Your task to perform on an android device: check battery use Image 0: 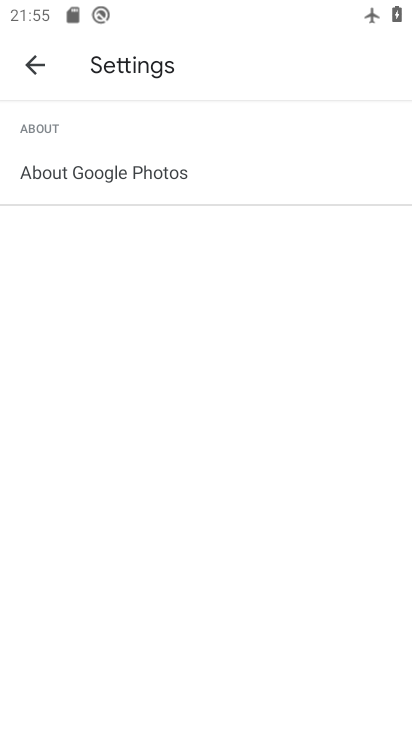
Step 0: press home button
Your task to perform on an android device: check battery use Image 1: 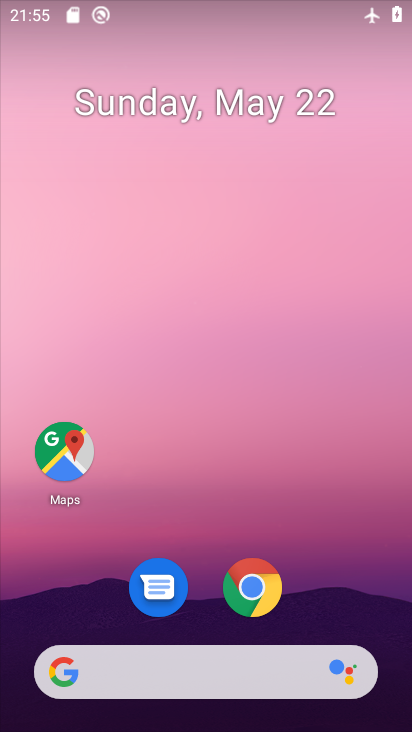
Step 1: drag from (193, 492) to (169, 23)
Your task to perform on an android device: check battery use Image 2: 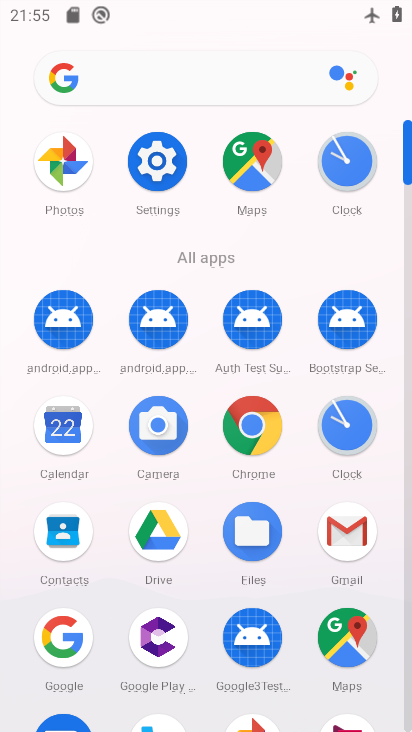
Step 2: click (157, 173)
Your task to perform on an android device: check battery use Image 3: 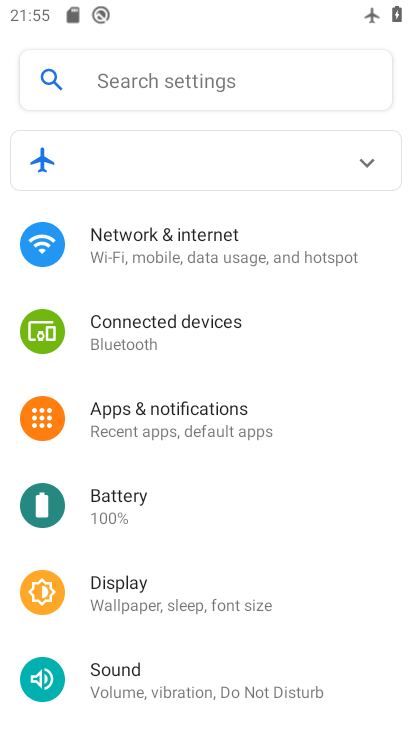
Step 3: click (147, 494)
Your task to perform on an android device: check battery use Image 4: 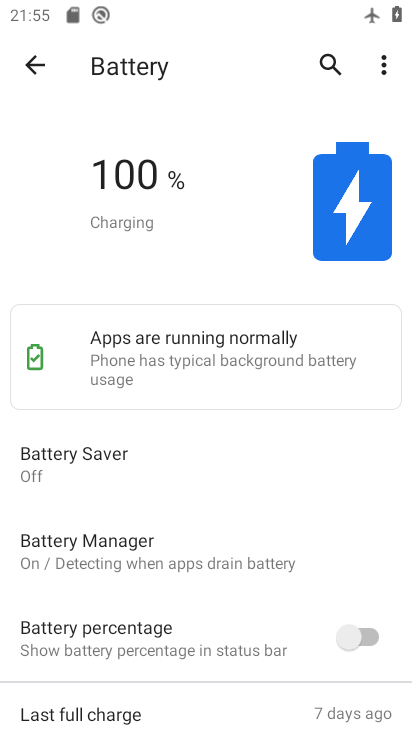
Step 4: click (374, 55)
Your task to perform on an android device: check battery use Image 5: 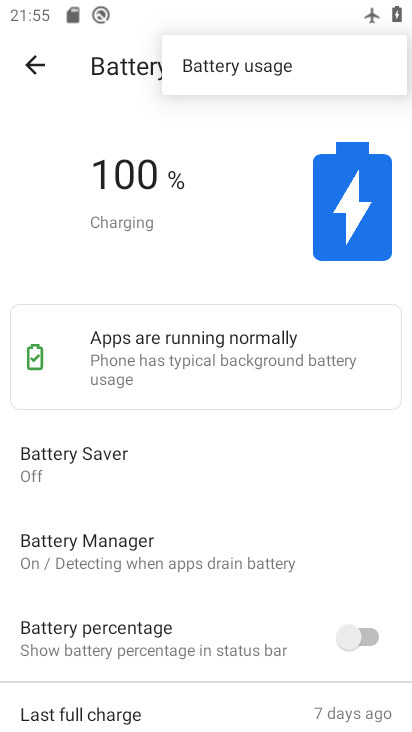
Step 5: click (281, 62)
Your task to perform on an android device: check battery use Image 6: 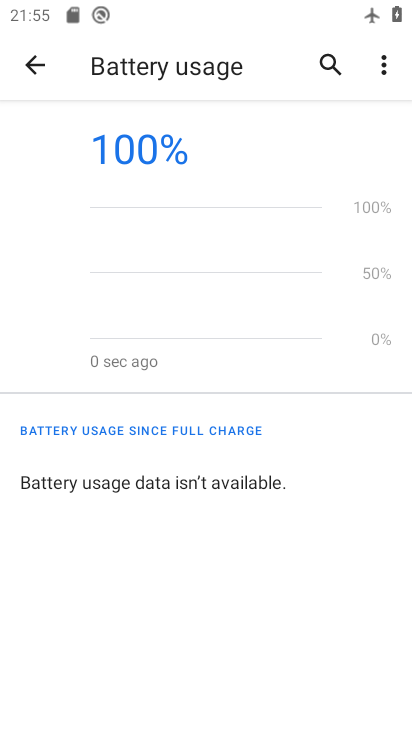
Step 6: task complete